Your task to perform on an android device: When is my next appointment? Image 0: 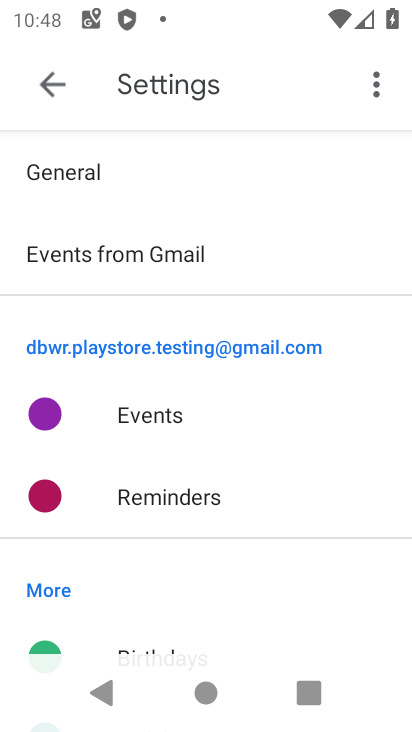
Step 0: drag from (252, 640) to (295, 0)
Your task to perform on an android device: When is my next appointment? Image 1: 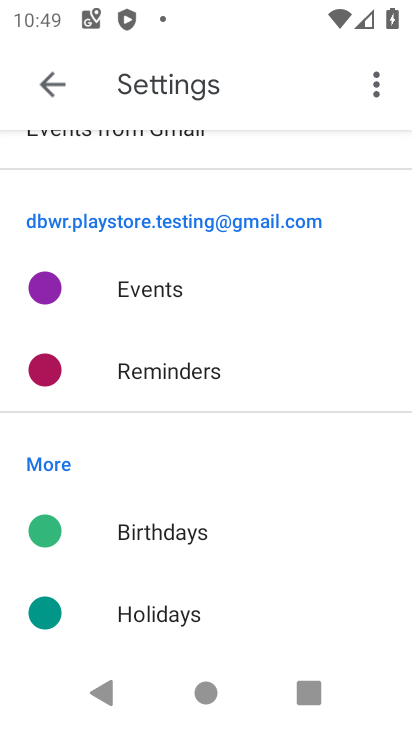
Step 1: drag from (285, 561) to (342, 188)
Your task to perform on an android device: When is my next appointment? Image 2: 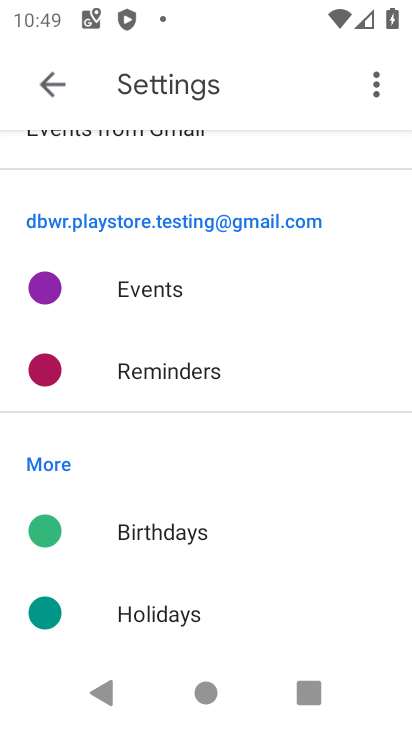
Step 2: press home button
Your task to perform on an android device: When is my next appointment? Image 3: 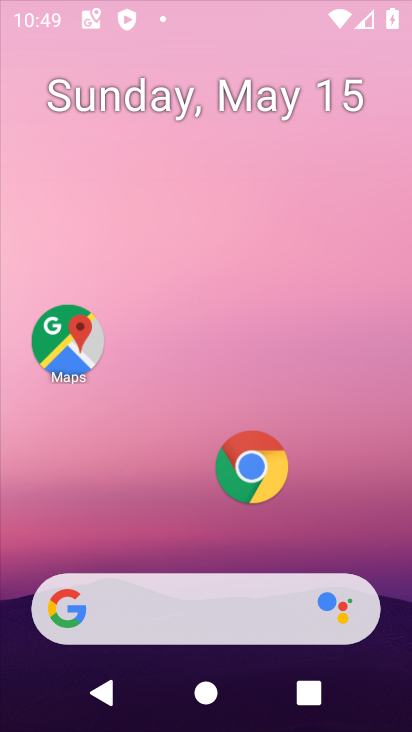
Step 3: drag from (246, 573) to (283, 0)
Your task to perform on an android device: When is my next appointment? Image 4: 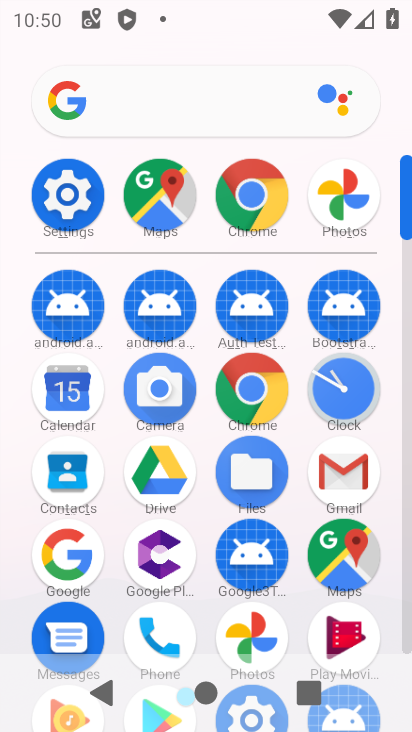
Step 4: click (80, 412)
Your task to perform on an android device: When is my next appointment? Image 5: 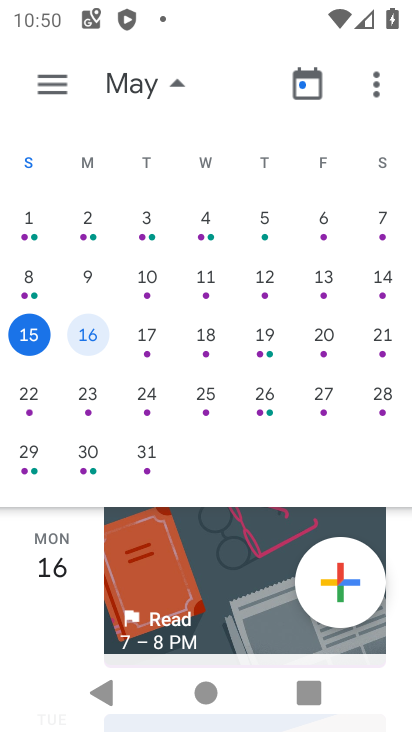
Step 5: task complete